Your task to perform on an android device: turn smart compose on in the gmail app Image 0: 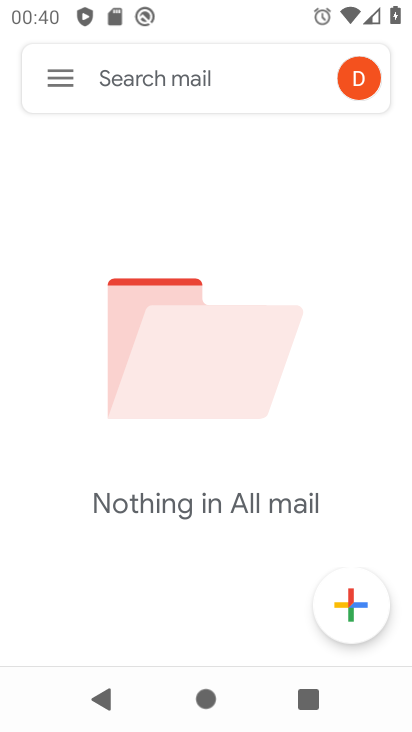
Step 0: press home button
Your task to perform on an android device: turn smart compose on in the gmail app Image 1: 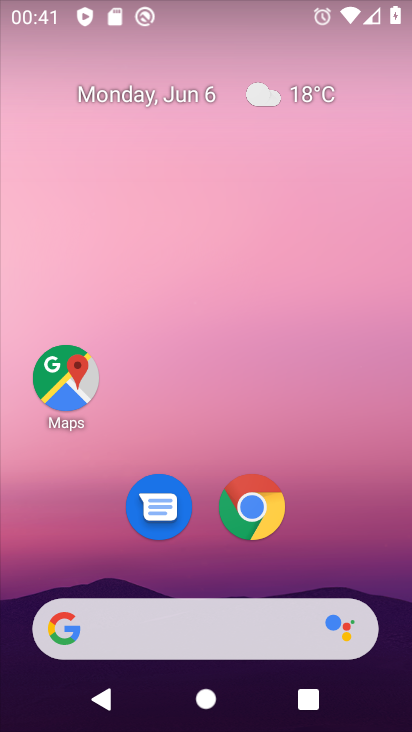
Step 1: drag from (216, 596) to (291, 167)
Your task to perform on an android device: turn smart compose on in the gmail app Image 2: 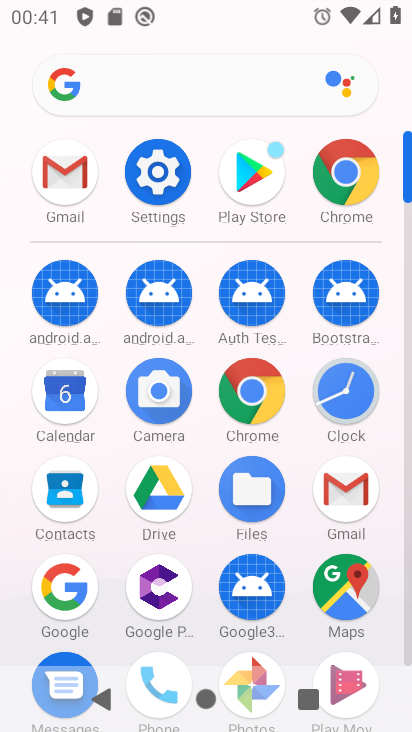
Step 2: click (350, 484)
Your task to perform on an android device: turn smart compose on in the gmail app Image 3: 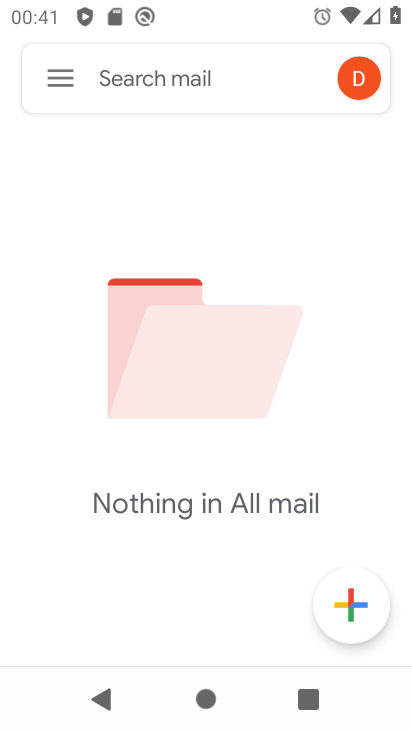
Step 3: click (50, 86)
Your task to perform on an android device: turn smart compose on in the gmail app Image 4: 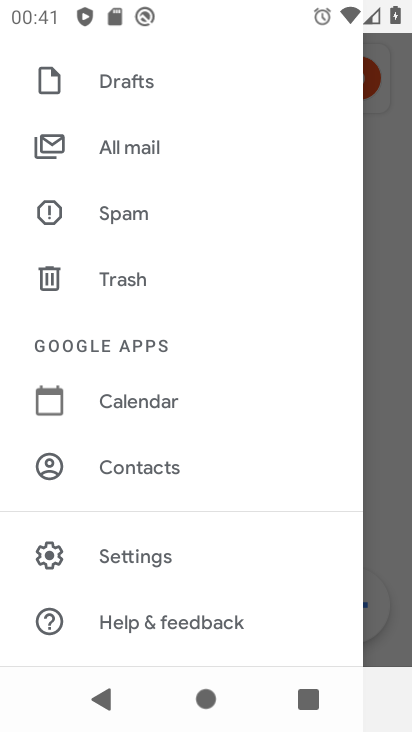
Step 4: click (138, 547)
Your task to perform on an android device: turn smart compose on in the gmail app Image 5: 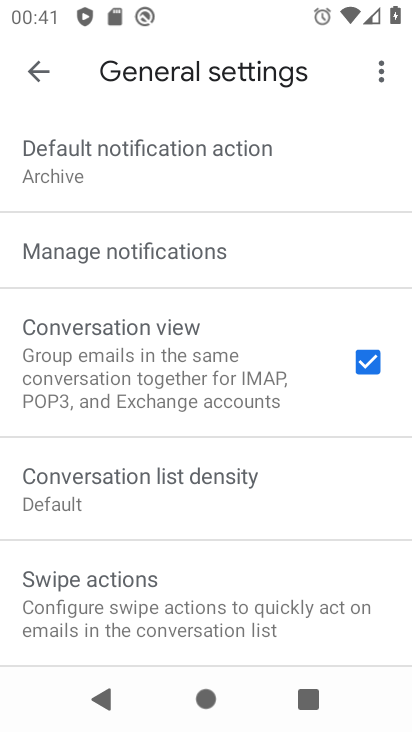
Step 5: click (40, 66)
Your task to perform on an android device: turn smart compose on in the gmail app Image 6: 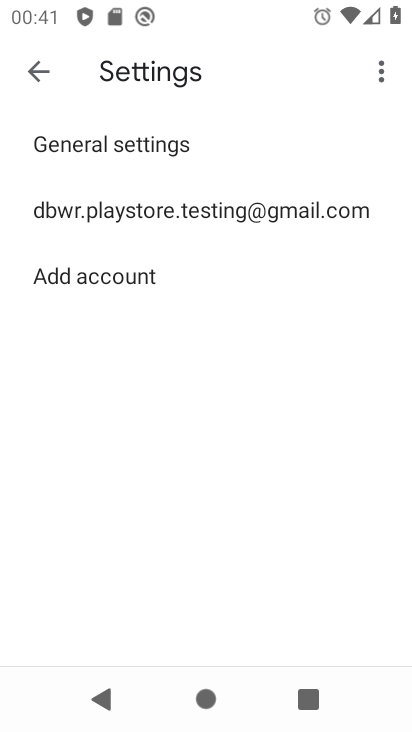
Step 6: click (183, 221)
Your task to perform on an android device: turn smart compose on in the gmail app Image 7: 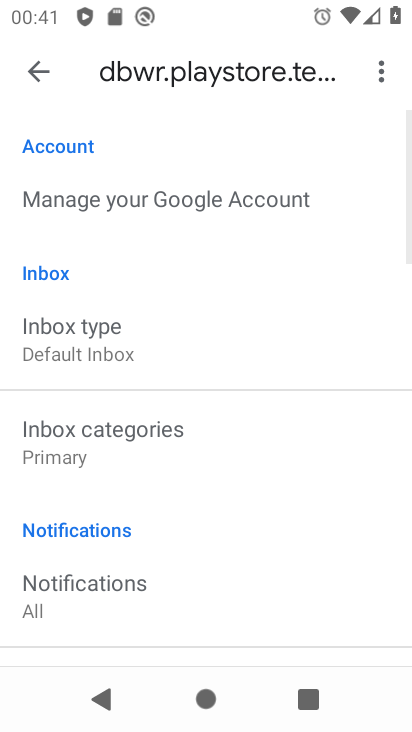
Step 7: task complete